Your task to perform on an android device: open app "Google Pay: Save, Pay, Manage" (install if not already installed) Image 0: 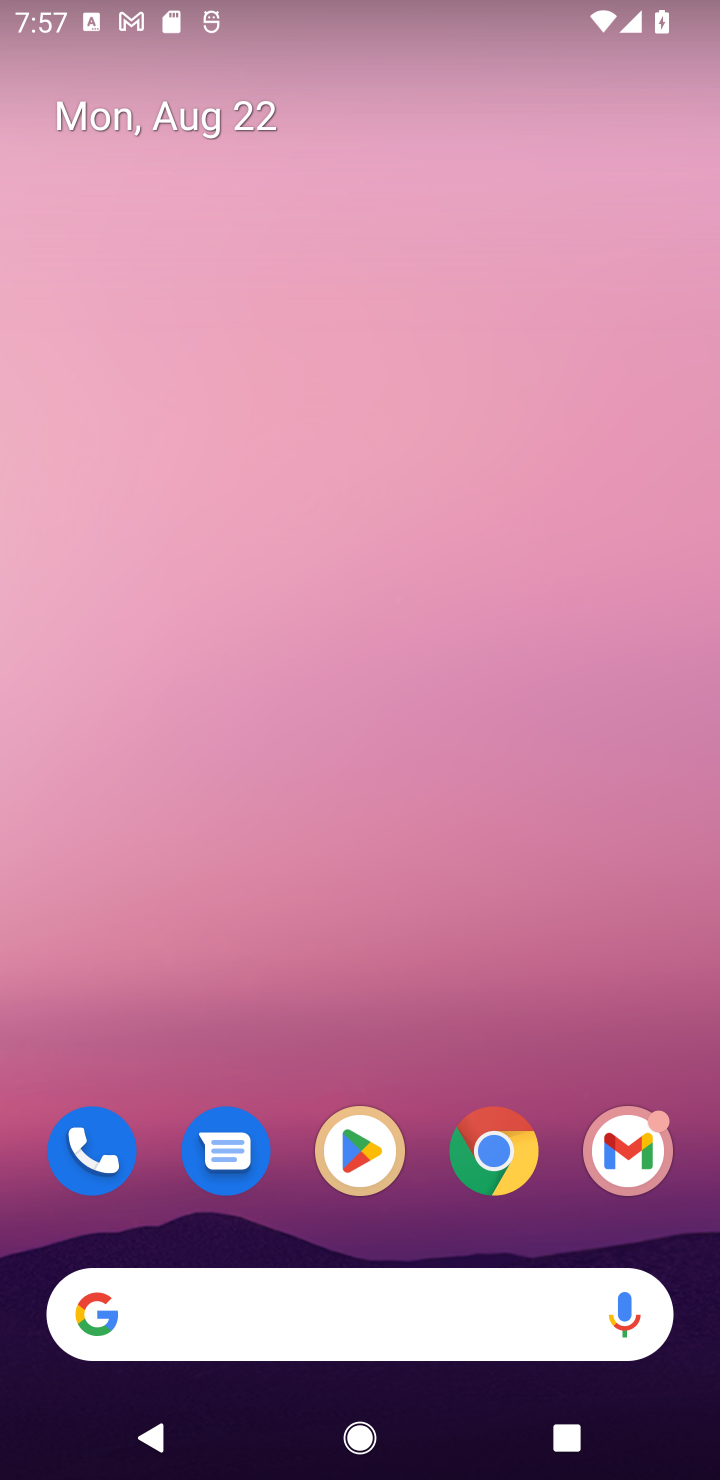
Step 0: click (352, 1149)
Your task to perform on an android device: open app "Google Pay: Save, Pay, Manage" (install if not already installed) Image 1: 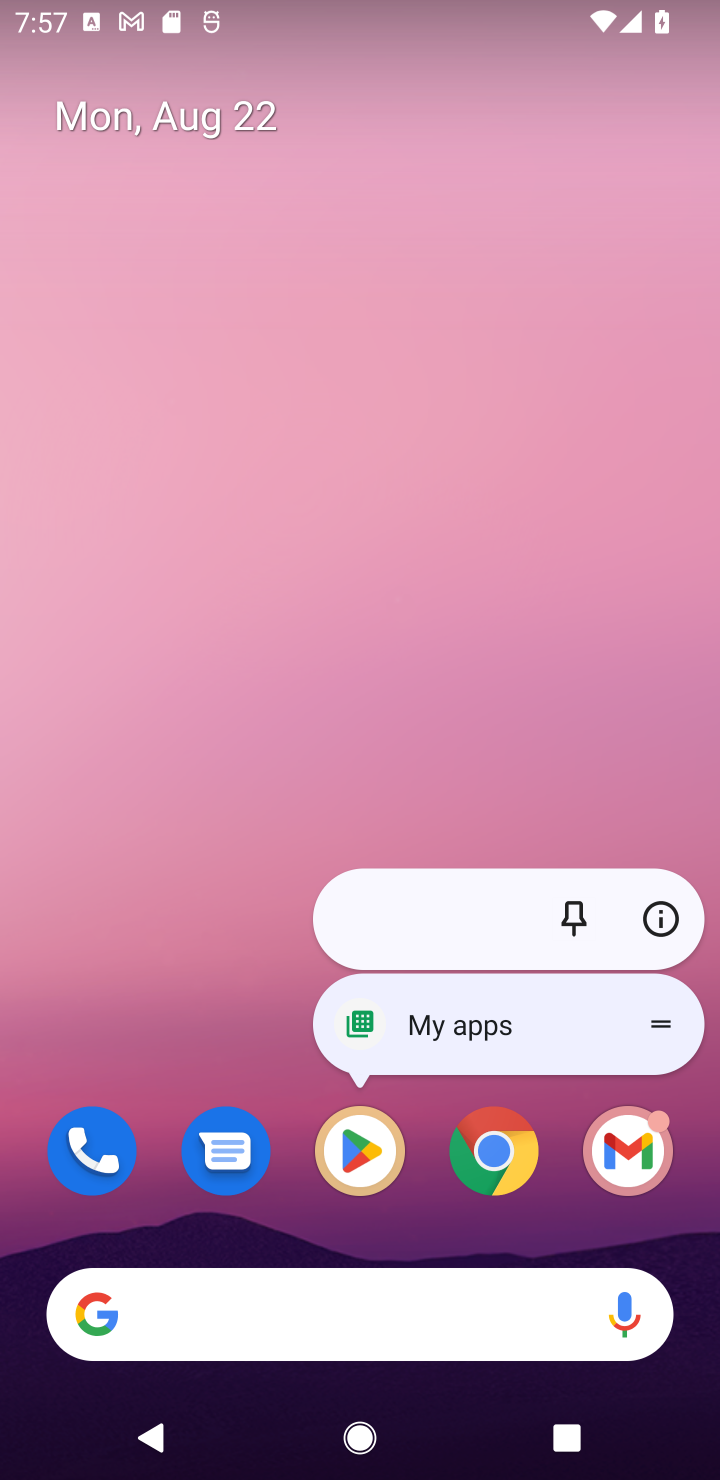
Step 1: click (352, 1147)
Your task to perform on an android device: open app "Google Pay: Save, Pay, Manage" (install if not already installed) Image 2: 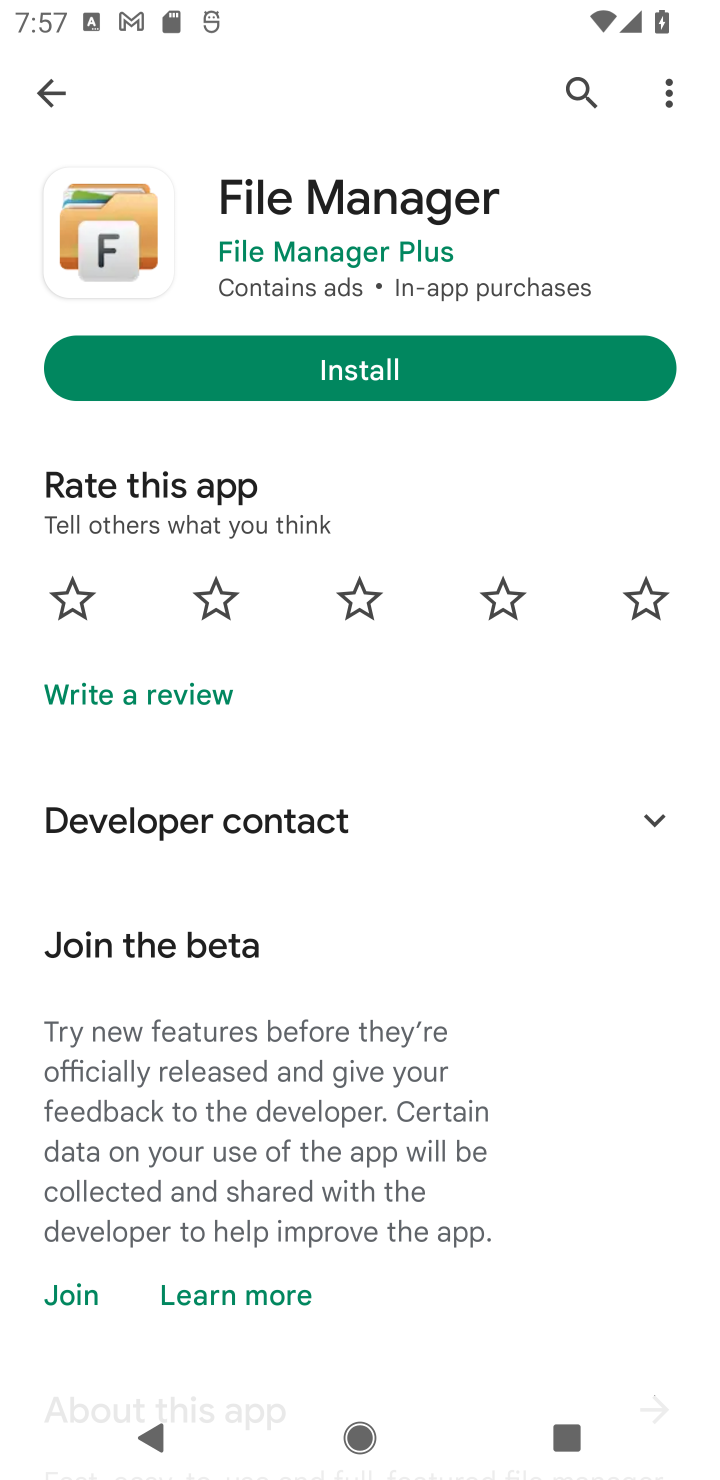
Step 2: click (568, 90)
Your task to perform on an android device: open app "Google Pay: Save, Pay, Manage" (install if not already installed) Image 3: 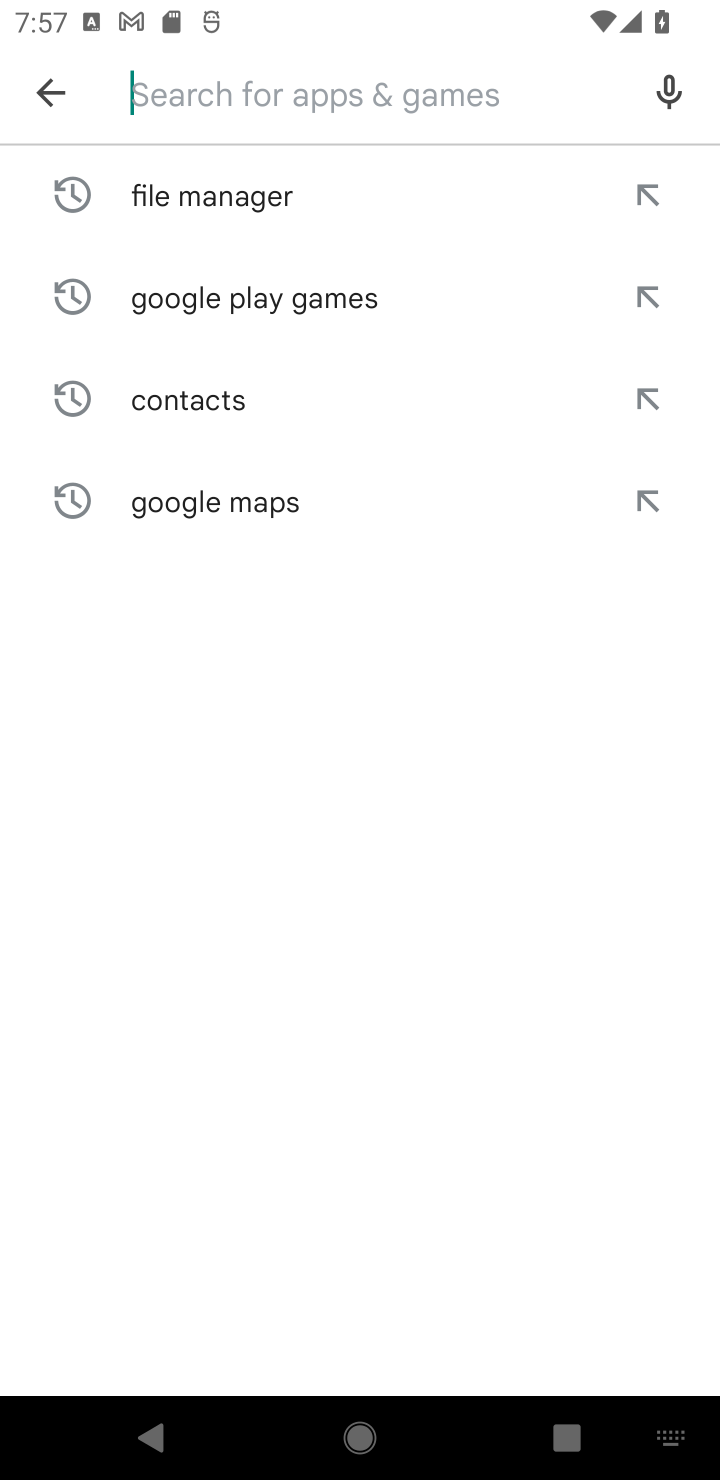
Step 3: type "Google Pay: Save, Pay, Manage"
Your task to perform on an android device: open app "Google Pay: Save, Pay, Manage" (install if not already installed) Image 4: 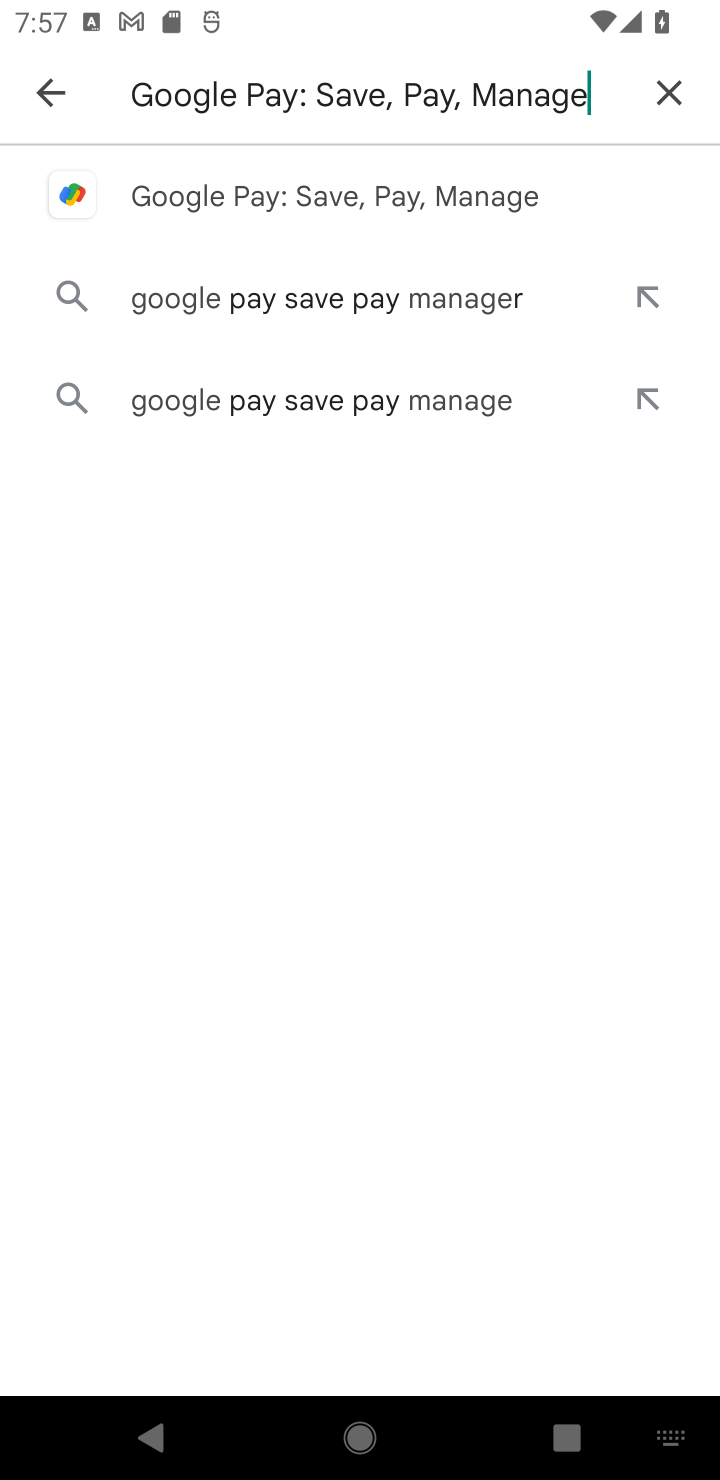
Step 4: click (247, 198)
Your task to perform on an android device: open app "Google Pay: Save, Pay, Manage" (install if not already installed) Image 5: 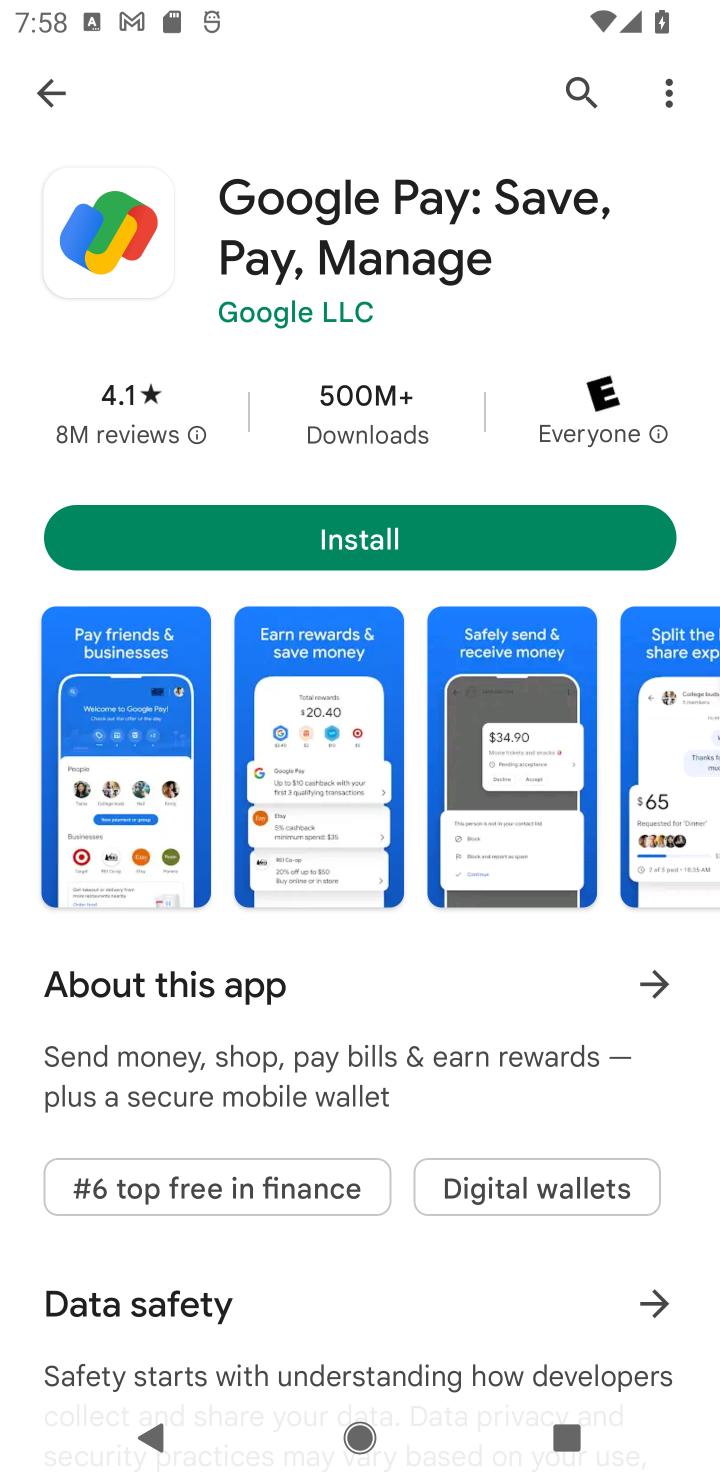
Step 5: click (385, 537)
Your task to perform on an android device: open app "Google Pay: Save, Pay, Manage" (install if not already installed) Image 6: 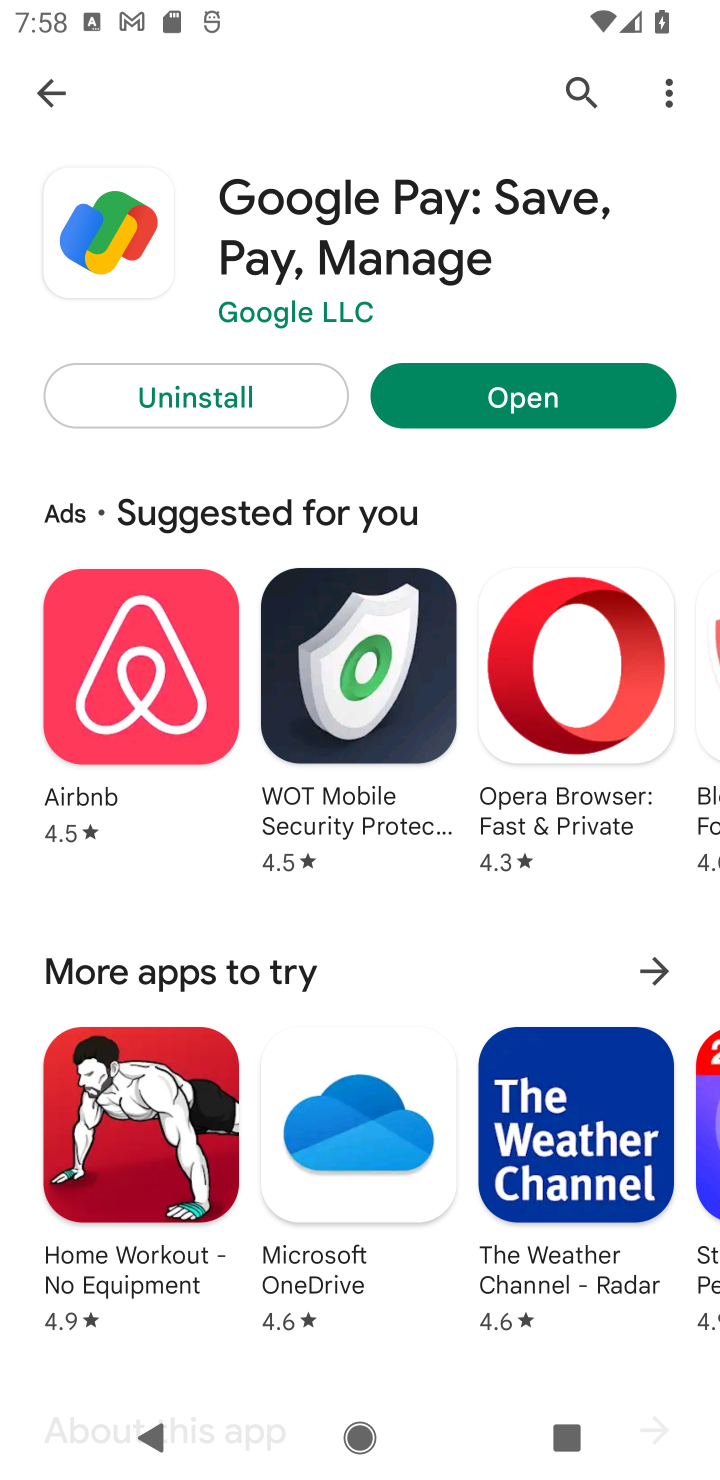
Step 6: click (529, 385)
Your task to perform on an android device: open app "Google Pay: Save, Pay, Manage" (install if not already installed) Image 7: 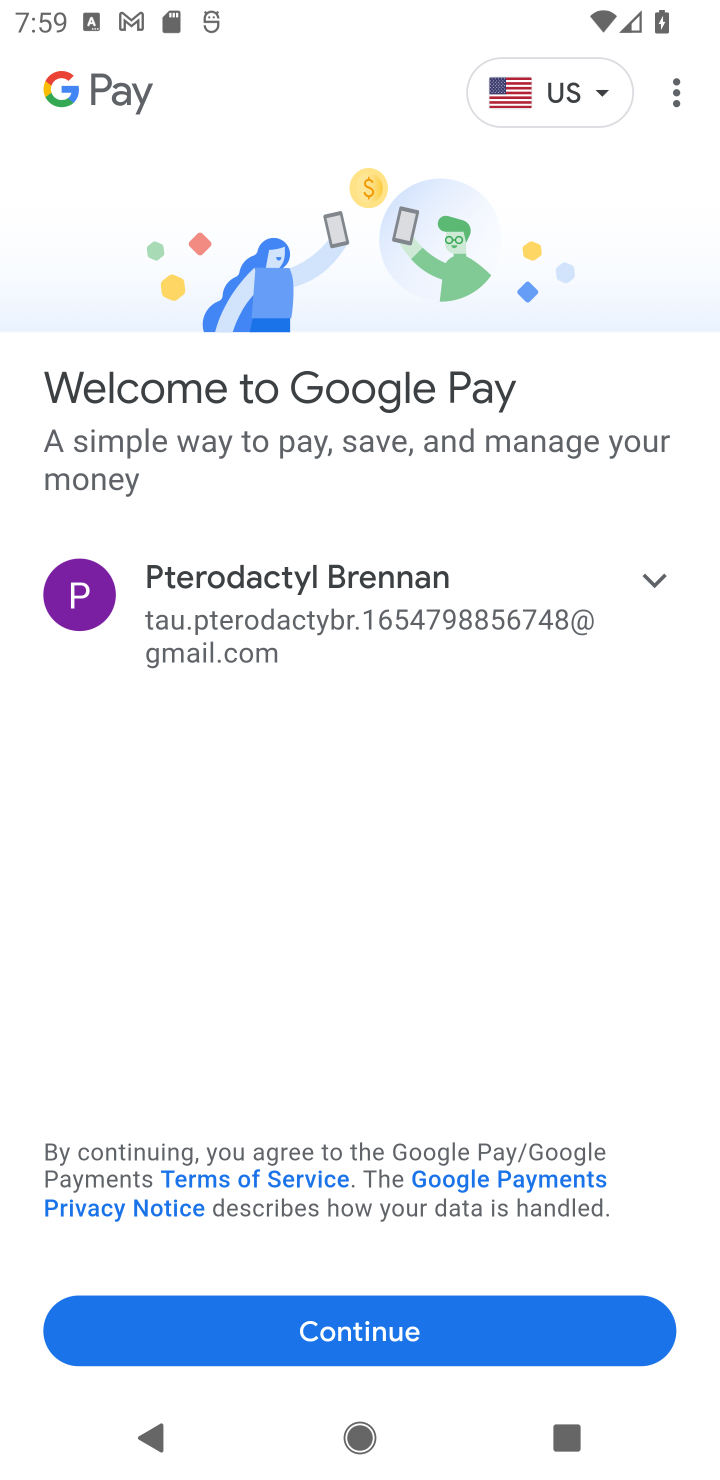
Step 7: task complete